Your task to perform on an android device: When is my next meeting? Image 0: 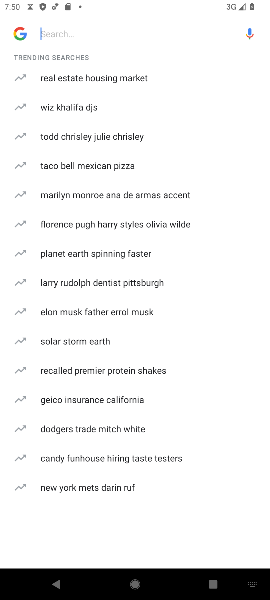
Step 0: press home button
Your task to perform on an android device: When is my next meeting? Image 1: 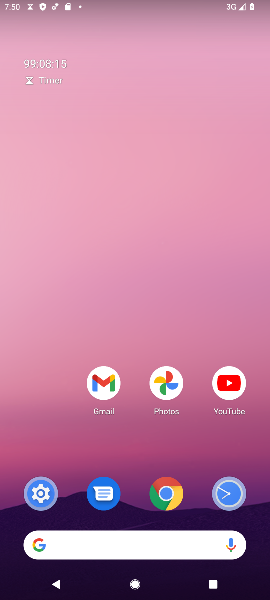
Step 1: drag from (101, 512) to (130, 158)
Your task to perform on an android device: When is my next meeting? Image 2: 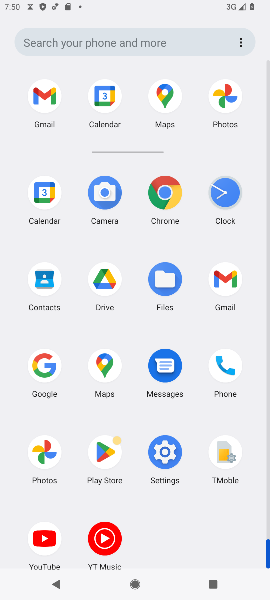
Step 2: click (39, 183)
Your task to perform on an android device: When is my next meeting? Image 3: 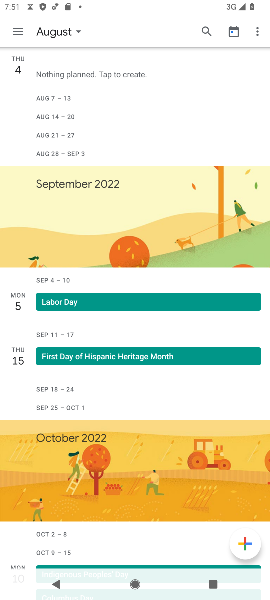
Step 3: task complete